Your task to perform on an android device: Open Youtube and go to the subscriptions tab Image 0: 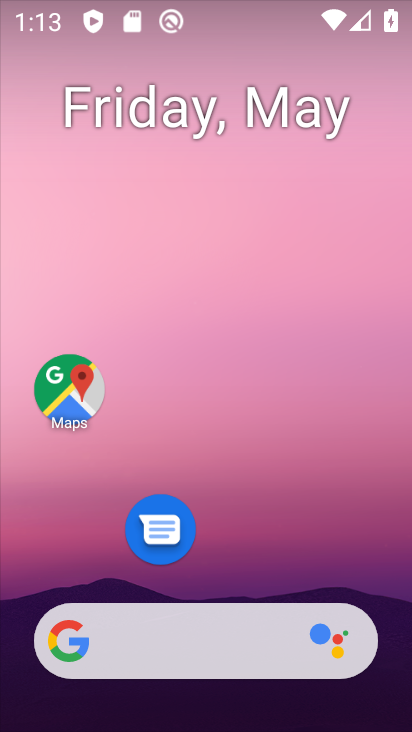
Step 0: drag from (212, 583) to (257, 149)
Your task to perform on an android device: Open Youtube and go to the subscriptions tab Image 1: 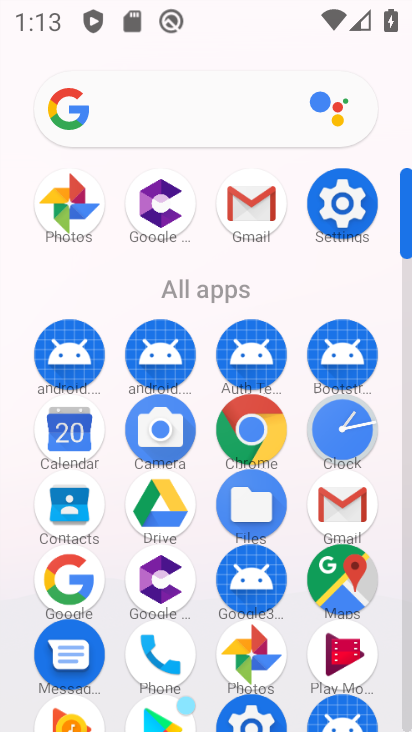
Step 1: drag from (199, 678) to (208, 380)
Your task to perform on an android device: Open Youtube and go to the subscriptions tab Image 2: 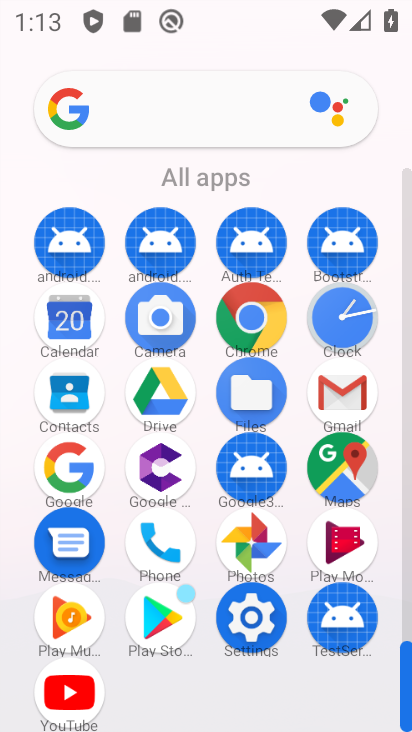
Step 2: click (65, 671)
Your task to perform on an android device: Open Youtube and go to the subscriptions tab Image 3: 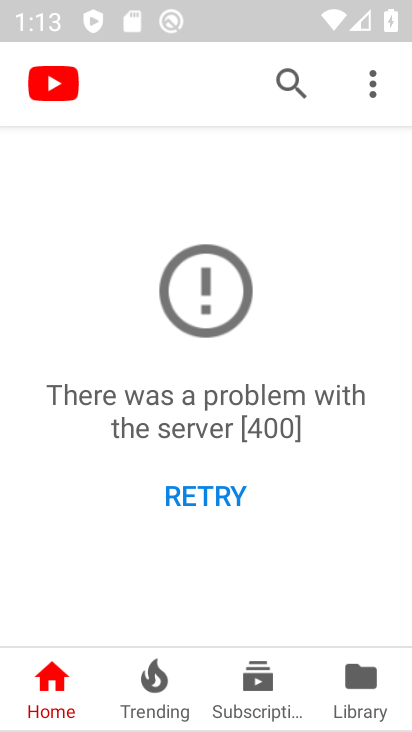
Step 3: click (208, 485)
Your task to perform on an android device: Open Youtube and go to the subscriptions tab Image 4: 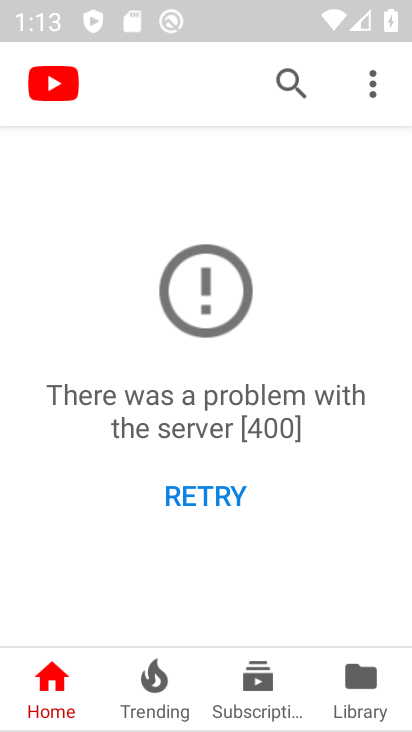
Step 4: click (263, 679)
Your task to perform on an android device: Open Youtube and go to the subscriptions tab Image 5: 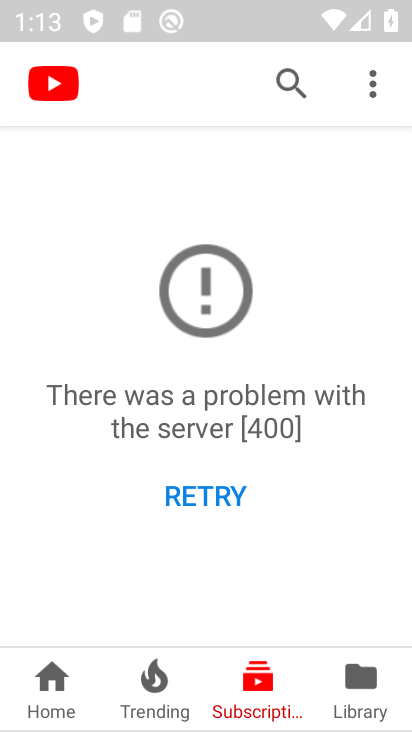
Step 5: task complete